Your task to perform on an android device: refresh tabs in the chrome app Image 0: 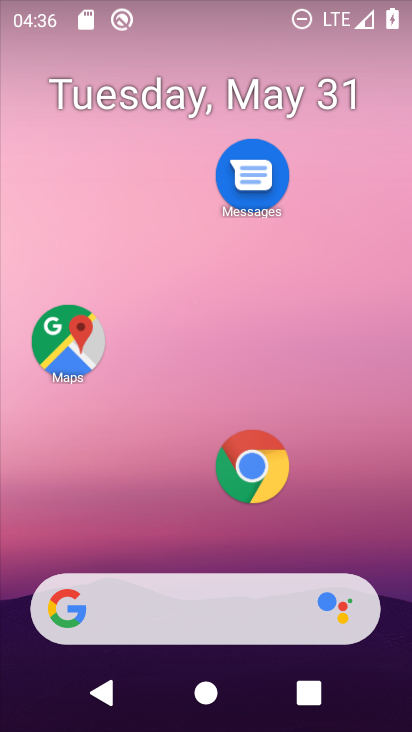
Step 0: click (253, 459)
Your task to perform on an android device: refresh tabs in the chrome app Image 1: 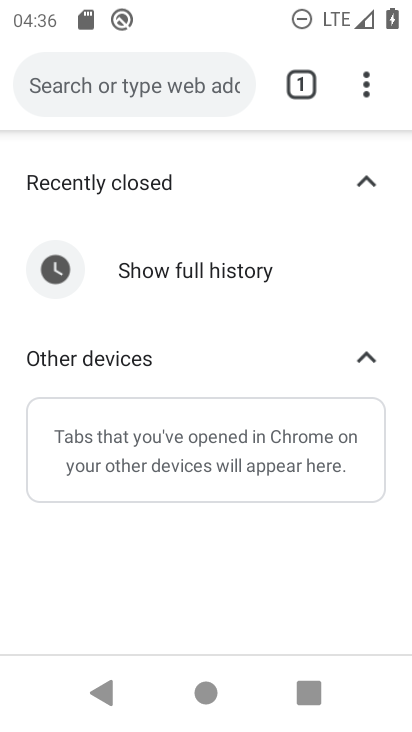
Step 1: task complete